Your task to perform on an android device: Open Google Chrome and click the shortcut for Amazon.com Image 0: 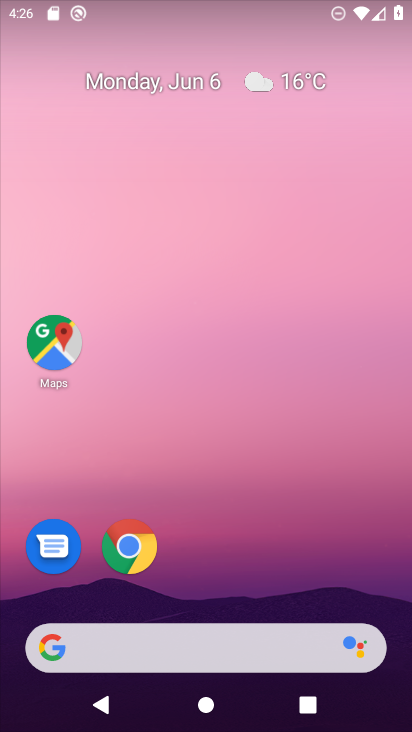
Step 0: click (120, 557)
Your task to perform on an android device: Open Google Chrome and click the shortcut for Amazon.com Image 1: 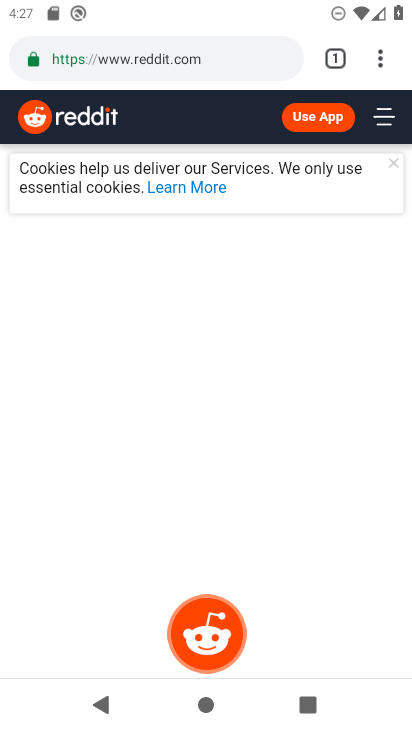
Step 1: click (331, 57)
Your task to perform on an android device: Open Google Chrome and click the shortcut for Amazon.com Image 2: 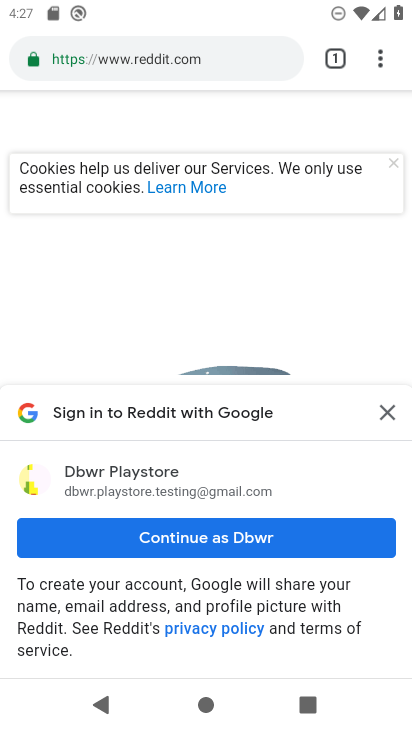
Step 2: click (338, 66)
Your task to perform on an android device: Open Google Chrome and click the shortcut for Amazon.com Image 3: 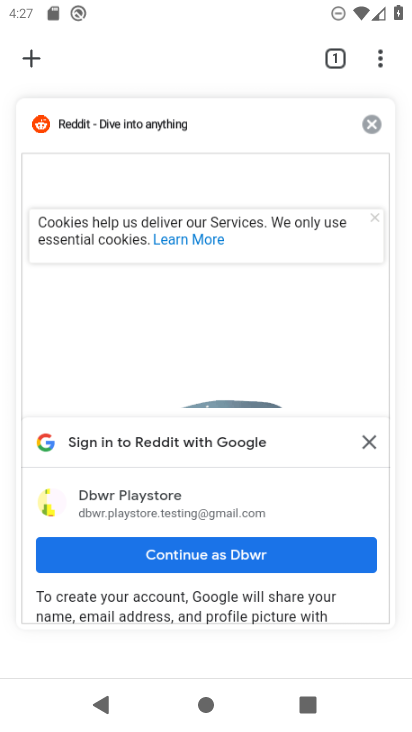
Step 3: click (27, 52)
Your task to perform on an android device: Open Google Chrome and click the shortcut for Amazon.com Image 4: 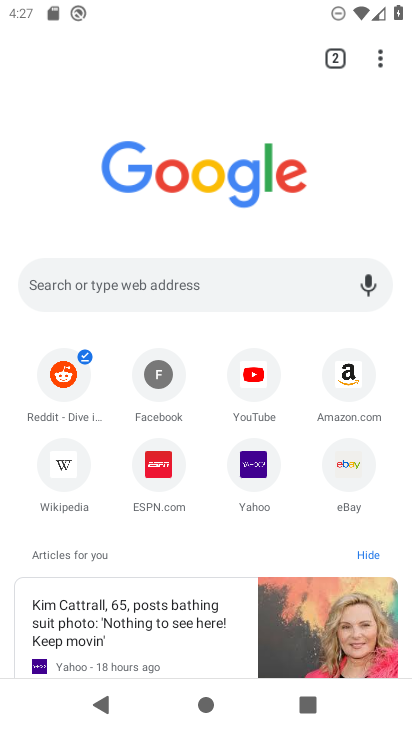
Step 4: click (338, 372)
Your task to perform on an android device: Open Google Chrome and click the shortcut for Amazon.com Image 5: 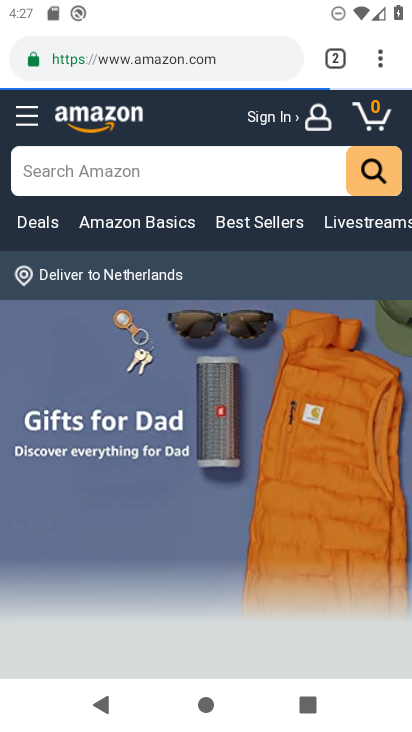
Step 5: task complete